Your task to perform on an android device: set an alarm Image 0: 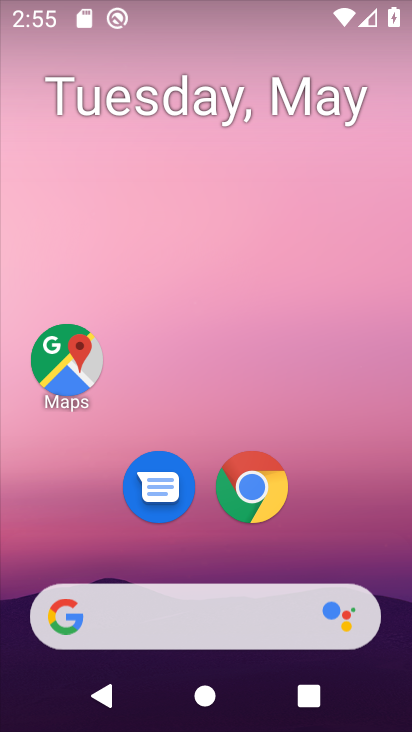
Step 0: drag from (144, 558) to (311, 0)
Your task to perform on an android device: set an alarm Image 1: 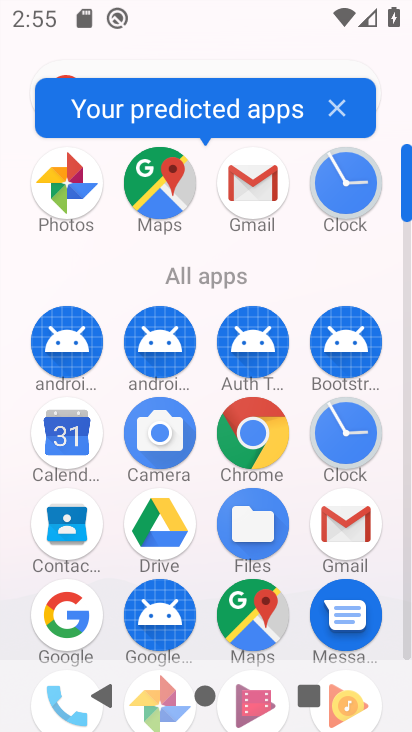
Step 1: click (333, 440)
Your task to perform on an android device: set an alarm Image 2: 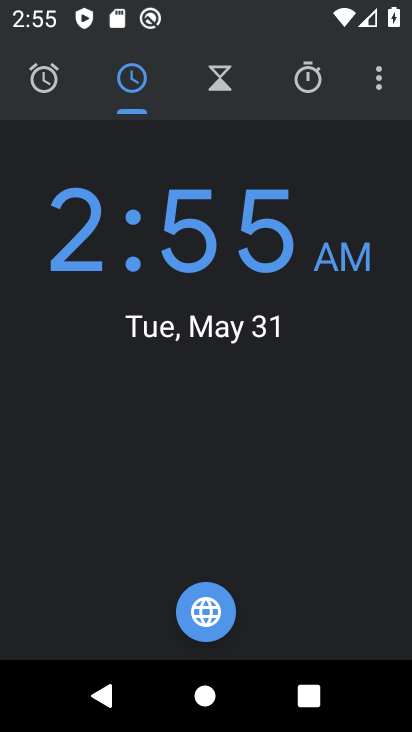
Step 2: click (46, 80)
Your task to perform on an android device: set an alarm Image 3: 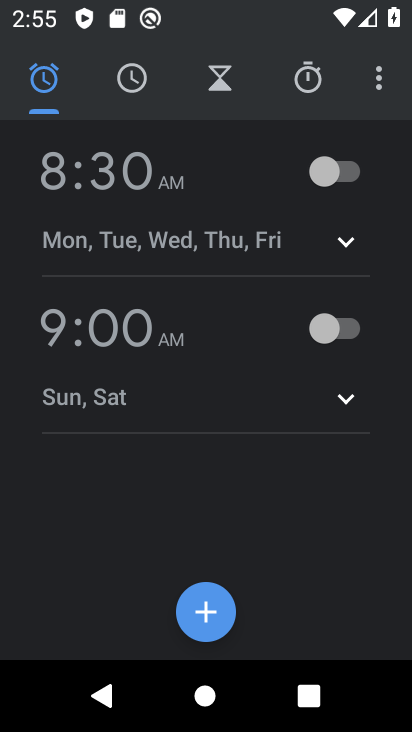
Step 3: click (358, 163)
Your task to perform on an android device: set an alarm Image 4: 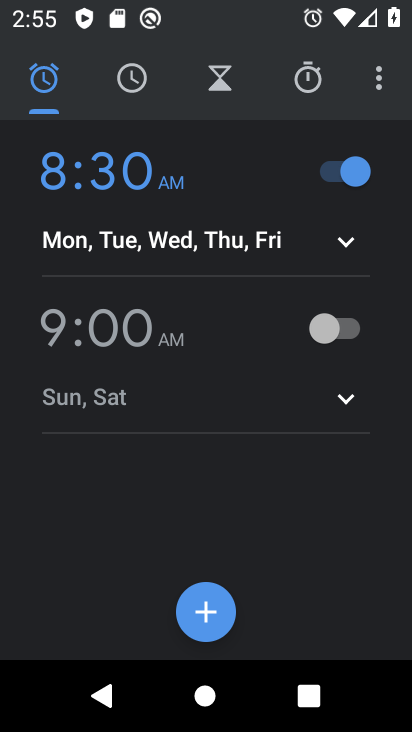
Step 4: task complete